Your task to perform on an android device: turn notification dots off Image 0: 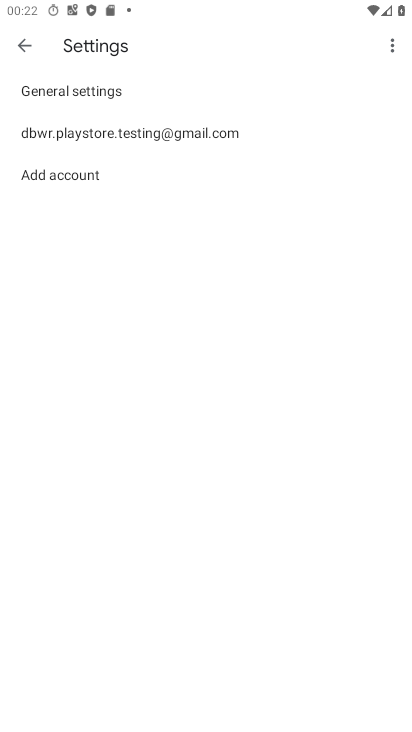
Step 0: press home button
Your task to perform on an android device: turn notification dots off Image 1: 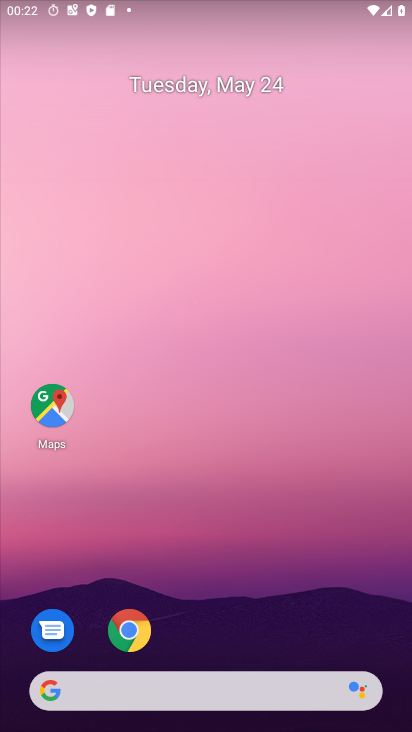
Step 1: drag from (227, 632) to (286, 10)
Your task to perform on an android device: turn notification dots off Image 2: 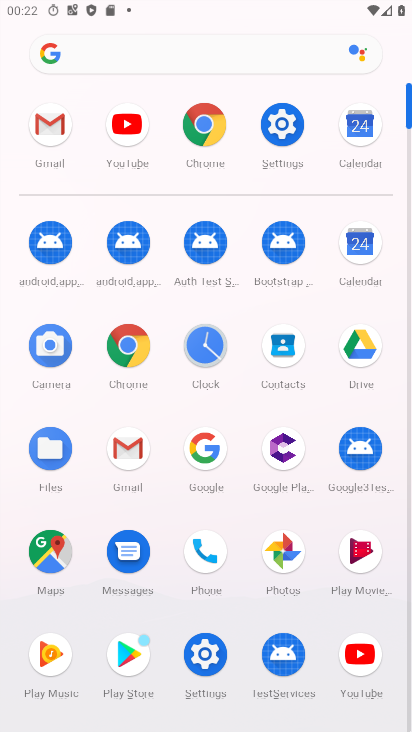
Step 2: click (289, 131)
Your task to perform on an android device: turn notification dots off Image 3: 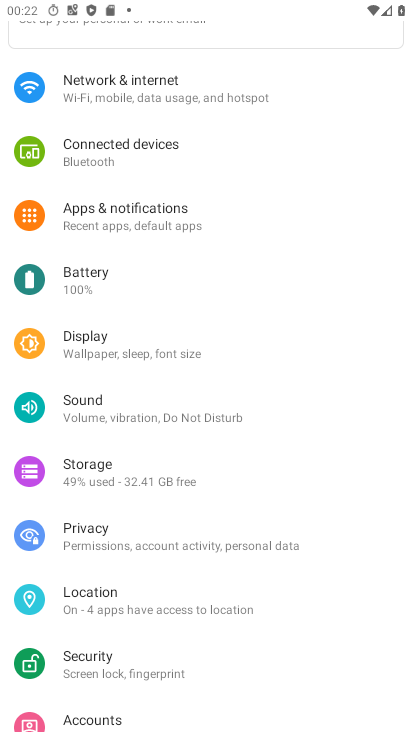
Step 3: click (100, 226)
Your task to perform on an android device: turn notification dots off Image 4: 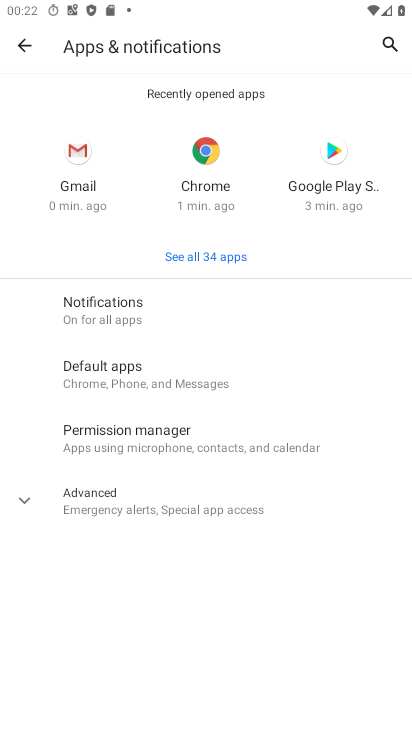
Step 4: click (113, 310)
Your task to perform on an android device: turn notification dots off Image 5: 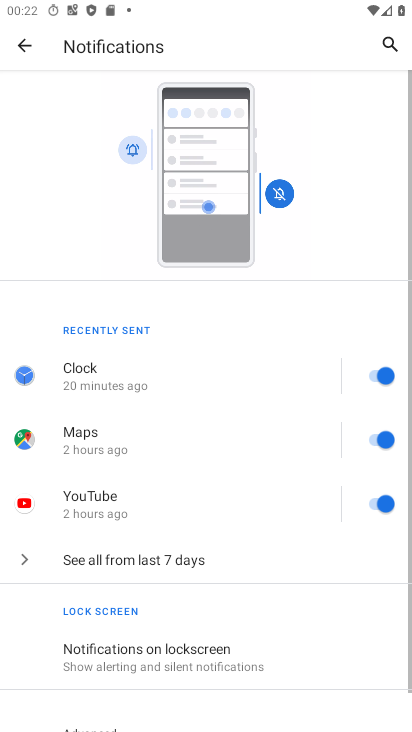
Step 5: drag from (166, 585) to (178, 199)
Your task to perform on an android device: turn notification dots off Image 6: 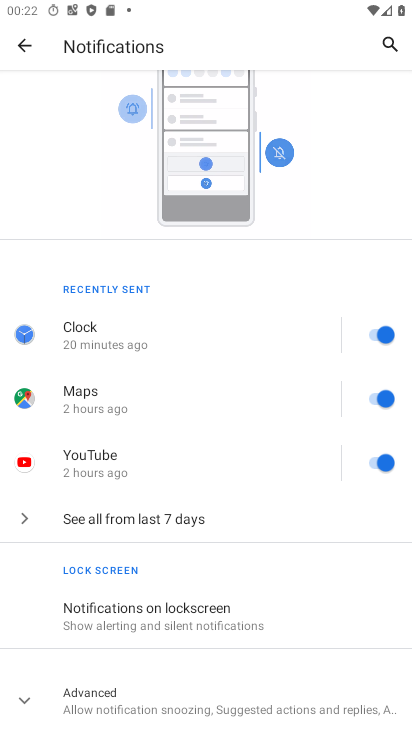
Step 6: click (23, 709)
Your task to perform on an android device: turn notification dots off Image 7: 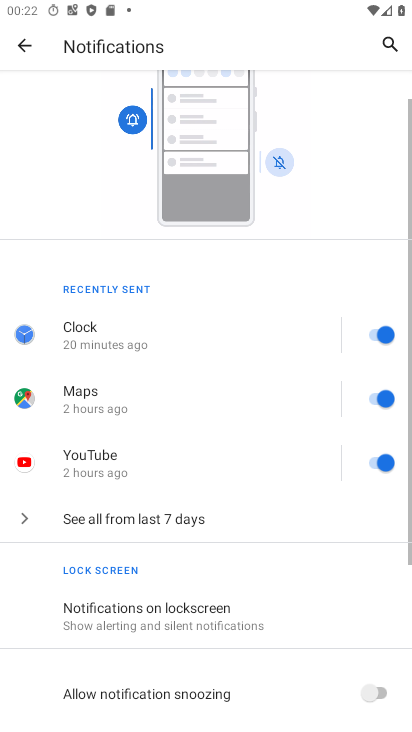
Step 7: drag from (138, 681) to (145, 283)
Your task to perform on an android device: turn notification dots off Image 8: 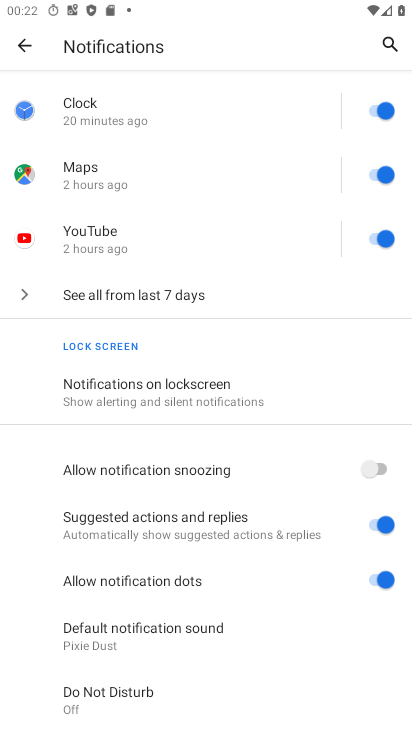
Step 8: click (379, 584)
Your task to perform on an android device: turn notification dots off Image 9: 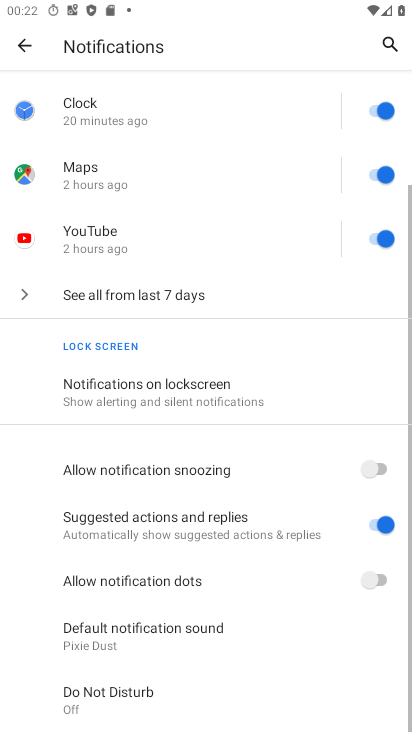
Step 9: task complete